Your task to perform on an android device: turn off picture-in-picture Image 0: 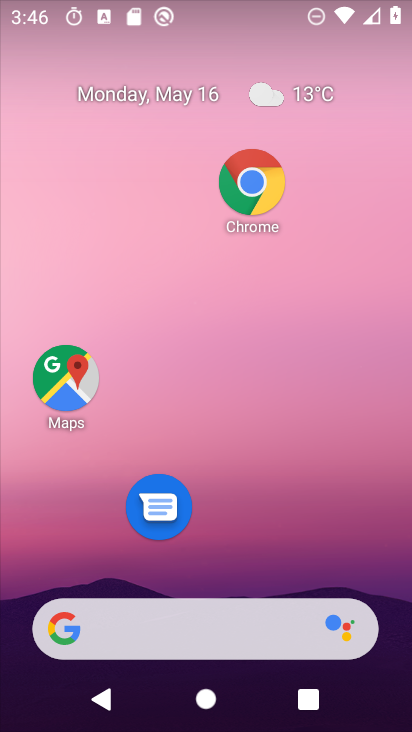
Step 0: drag from (265, 561) to (143, 73)
Your task to perform on an android device: turn off picture-in-picture Image 1: 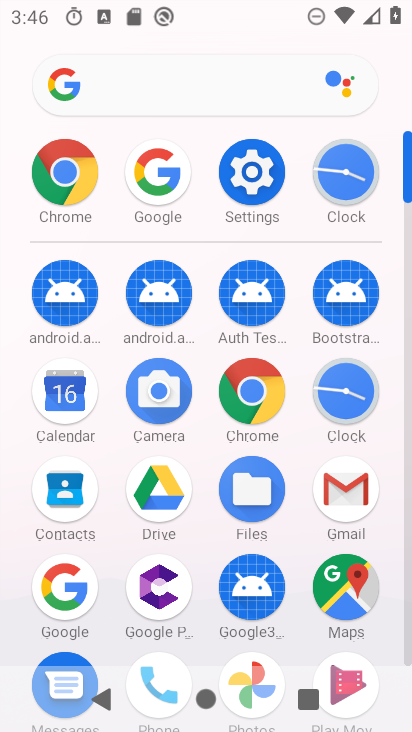
Step 1: click (236, 203)
Your task to perform on an android device: turn off picture-in-picture Image 2: 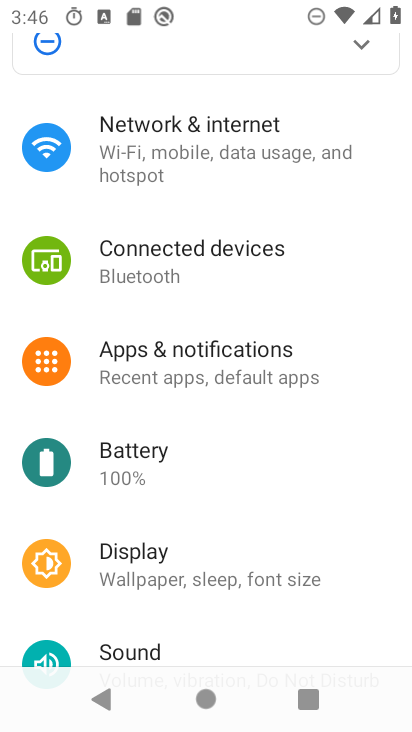
Step 2: click (226, 358)
Your task to perform on an android device: turn off picture-in-picture Image 3: 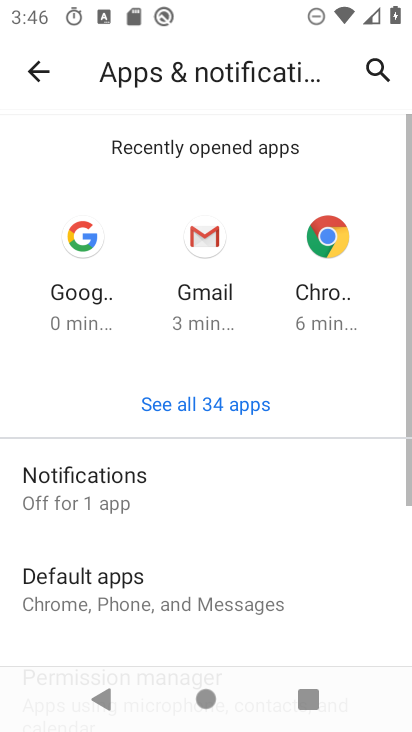
Step 3: drag from (153, 556) to (236, 140)
Your task to perform on an android device: turn off picture-in-picture Image 4: 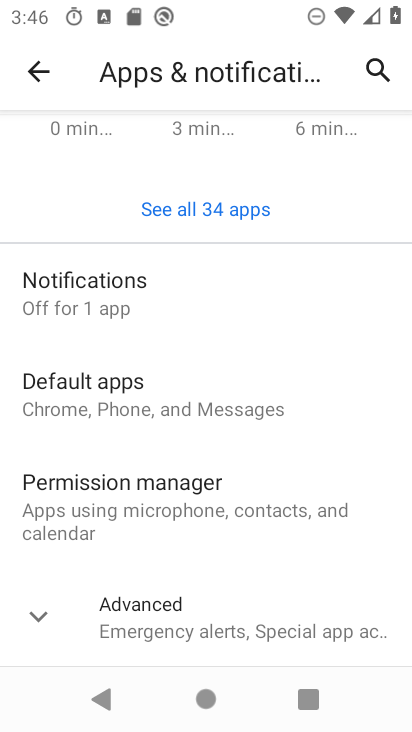
Step 4: click (177, 607)
Your task to perform on an android device: turn off picture-in-picture Image 5: 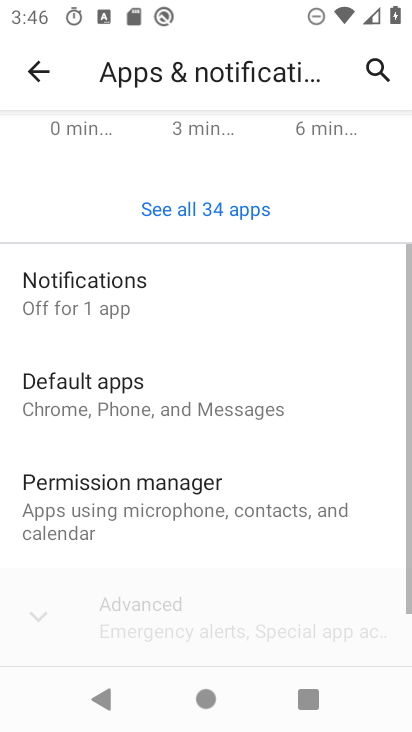
Step 5: drag from (184, 552) to (307, 118)
Your task to perform on an android device: turn off picture-in-picture Image 6: 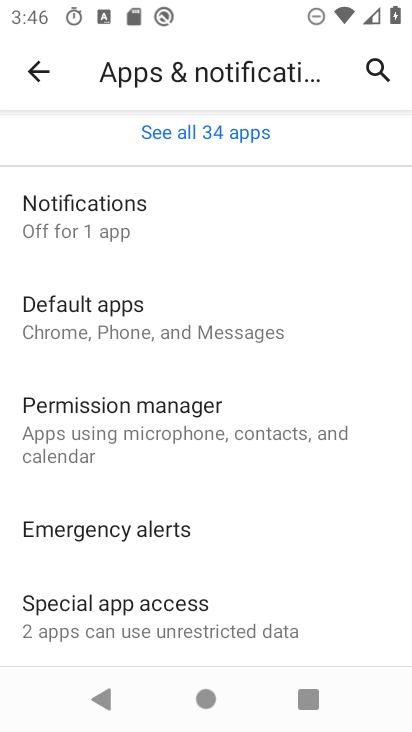
Step 6: click (229, 629)
Your task to perform on an android device: turn off picture-in-picture Image 7: 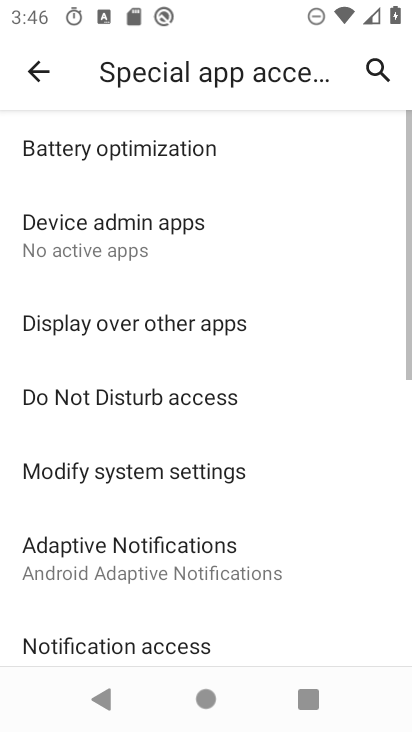
Step 7: drag from (238, 556) to (296, 205)
Your task to perform on an android device: turn off picture-in-picture Image 8: 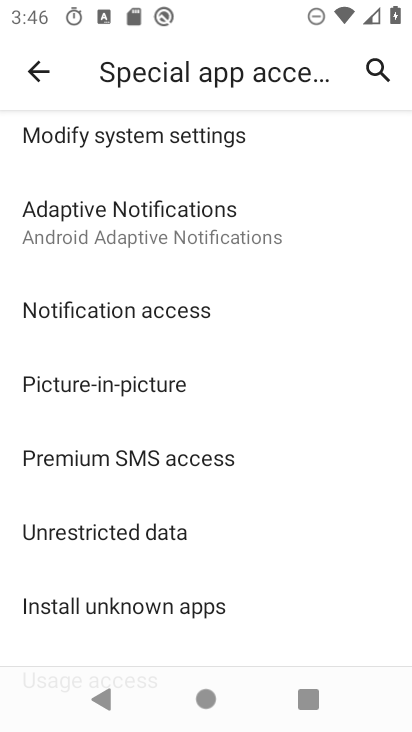
Step 8: click (193, 394)
Your task to perform on an android device: turn off picture-in-picture Image 9: 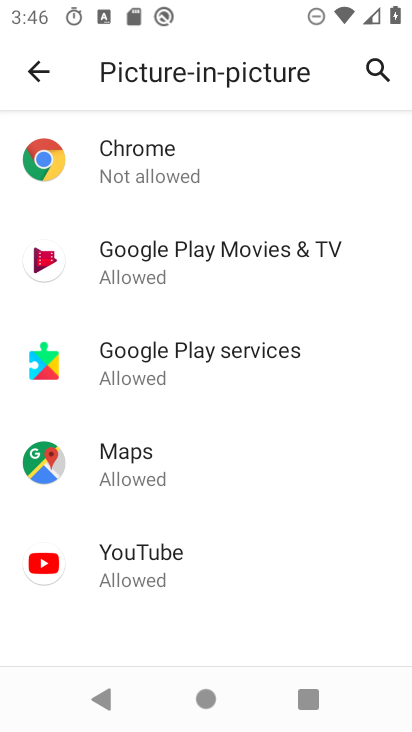
Step 9: click (239, 277)
Your task to perform on an android device: turn off picture-in-picture Image 10: 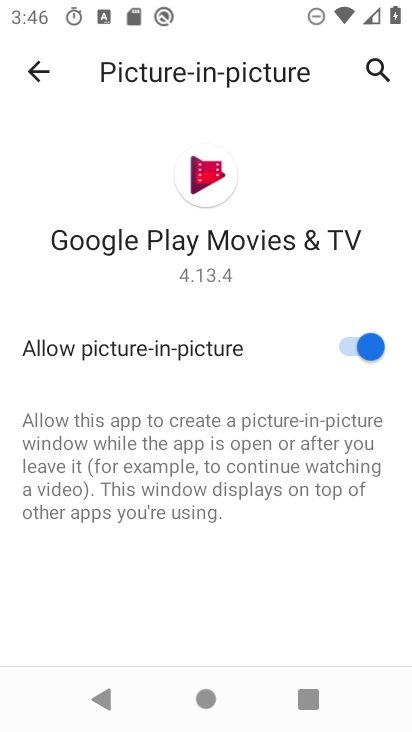
Step 10: click (358, 342)
Your task to perform on an android device: turn off picture-in-picture Image 11: 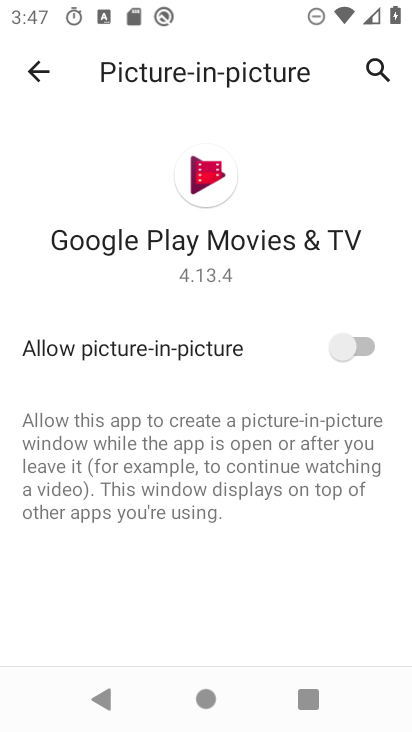
Step 11: task complete